Your task to perform on an android device: What's the weather? Image 0: 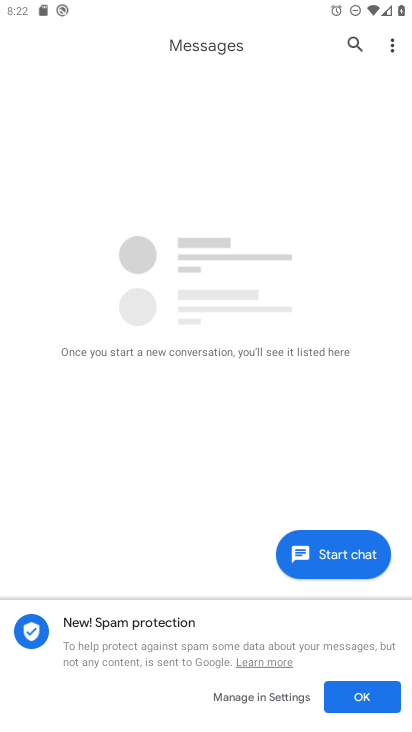
Step 0: press home button
Your task to perform on an android device: What's the weather? Image 1: 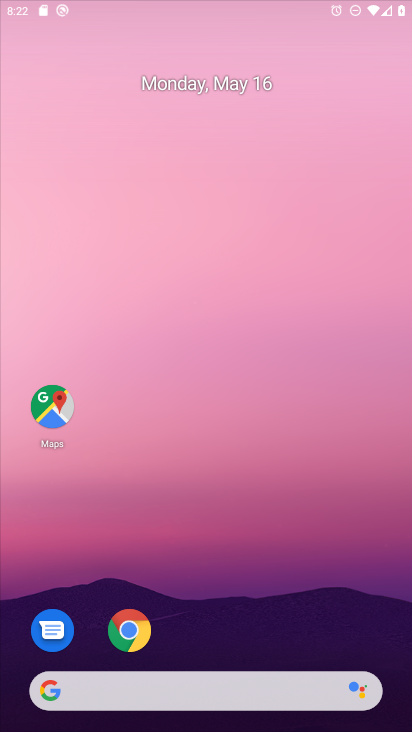
Step 1: drag from (206, 616) to (220, 163)
Your task to perform on an android device: What's the weather? Image 2: 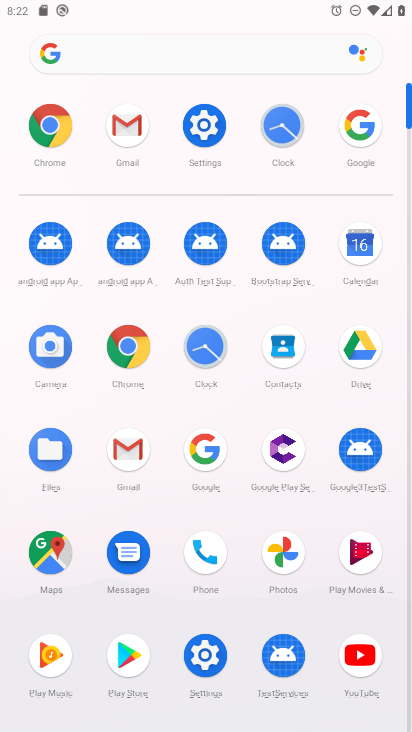
Step 2: click (175, 45)
Your task to perform on an android device: What's the weather? Image 3: 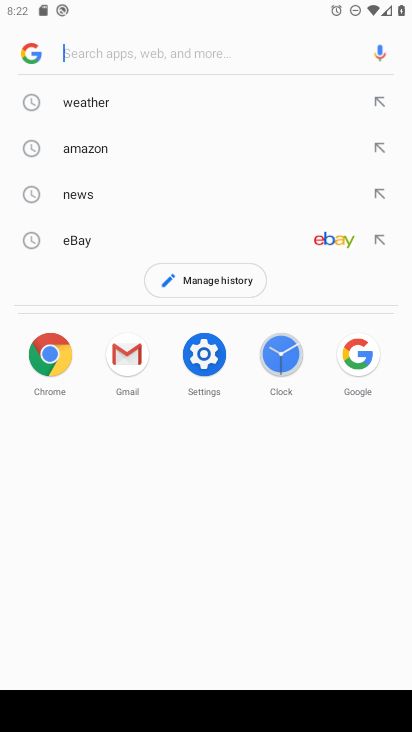
Step 3: click (147, 94)
Your task to perform on an android device: What's the weather? Image 4: 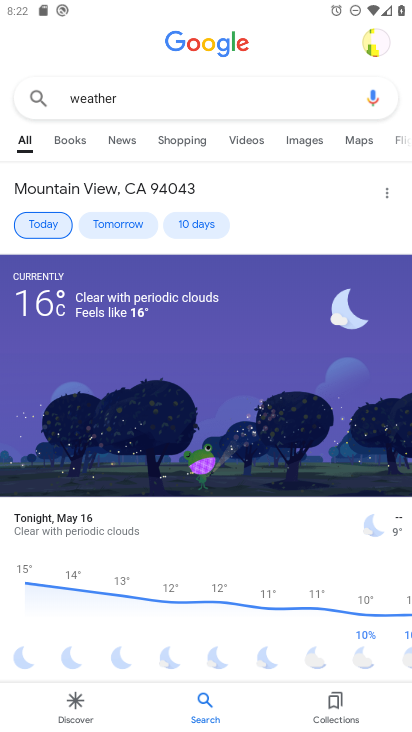
Step 4: click (183, 212)
Your task to perform on an android device: What's the weather? Image 5: 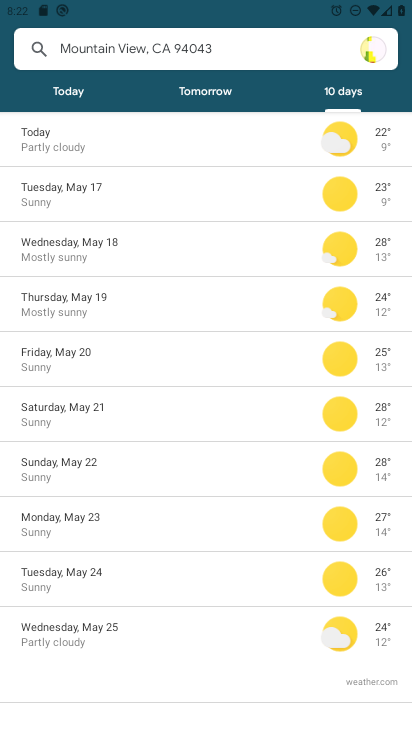
Step 5: click (65, 83)
Your task to perform on an android device: What's the weather? Image 6: 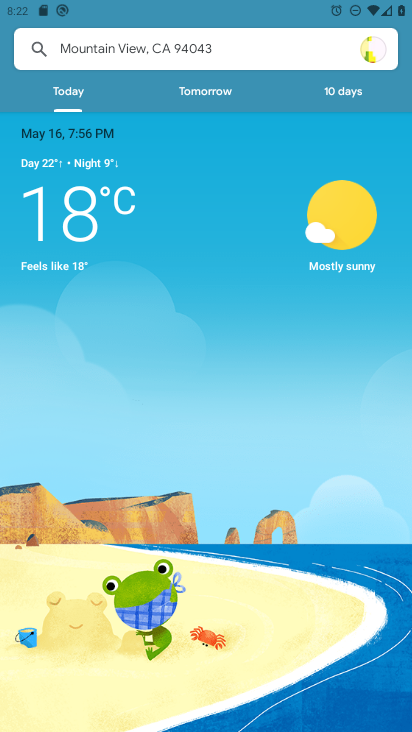
Step 6: task complete